Your task to perform on an android device: turn smart compose on in the gmail app Image 0: 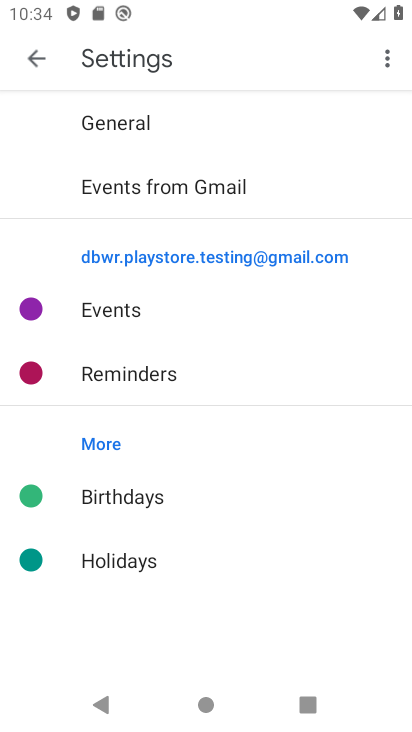
Step 0: press home button
Your task to perform on an android device: turn smart compose on in the gmail app Image 1: 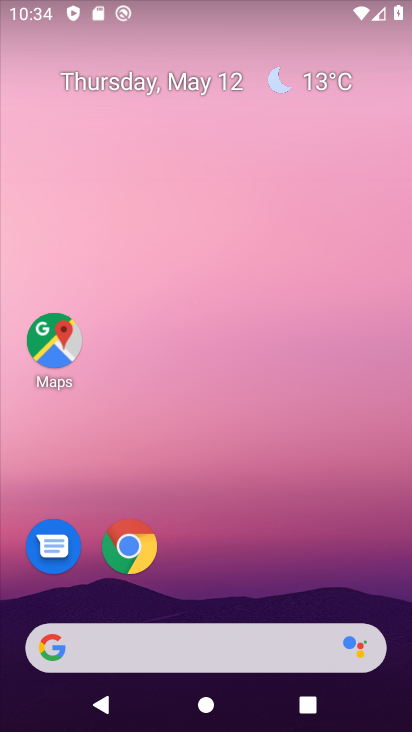
Step 1: drag from (277, 665) to (260, 257)
Your task to perform on an android device: turn smart compose on in the gmail app Image 2: 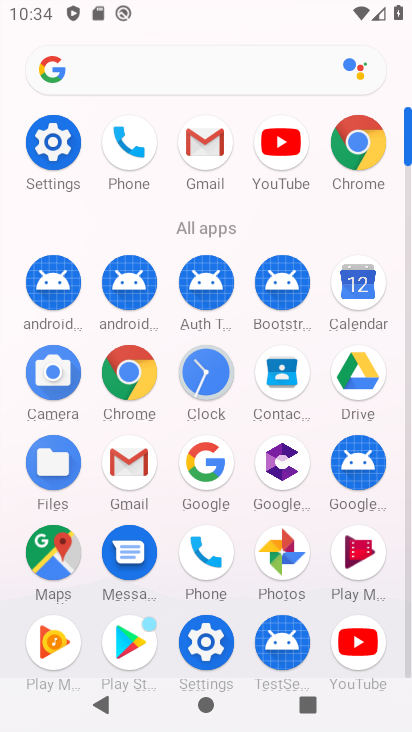
Step 2: click (138, 470)
Your task to perform on an android device: turn smart compose on in the gmail app Image 3: 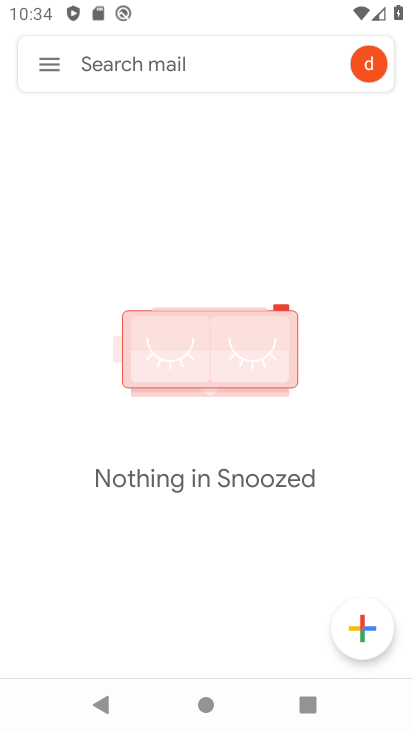
Step 3: click (47, 69)
Your task to perform on an android device: turn smart compose on in the gmail app Image 4: 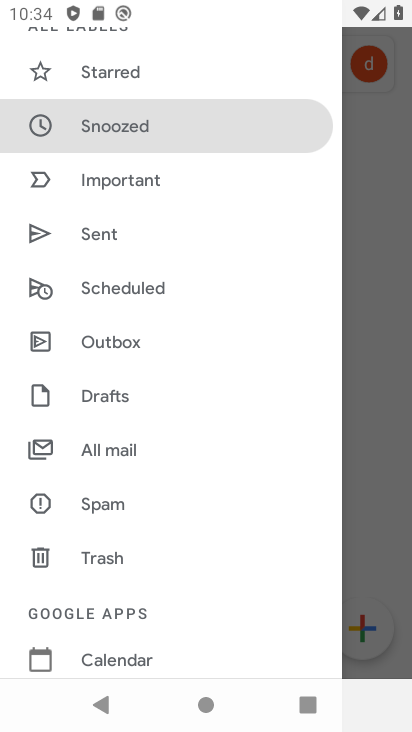
Step 4: drag from (92, 557) to (172, 375)
Your task to perform on an android device: turn smart compose on in the gmail app Image 5: 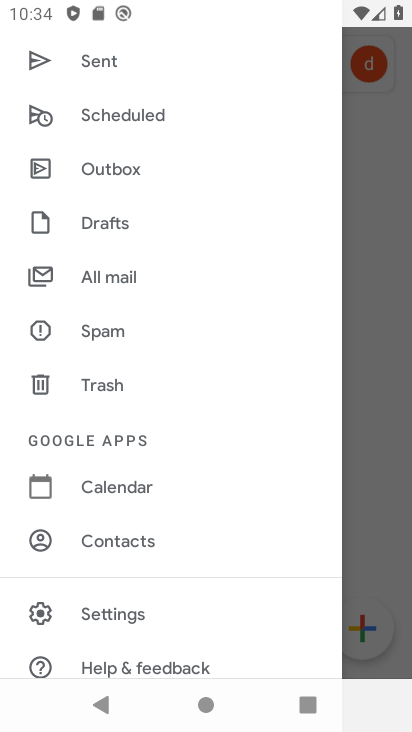
Step 5: click (120, 591)
Your task to perform on an android device: turn smart compose on in the gmail app Image 6: 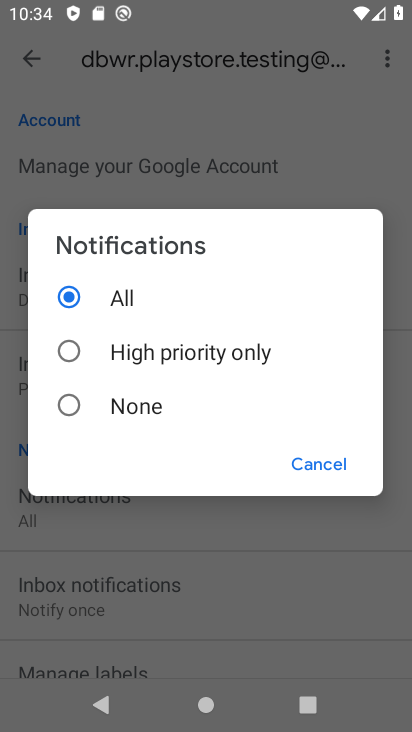
Step 6: click (304, 463)
Your task to perform on an android device: turn smart compose on in the gmail app Image 7: 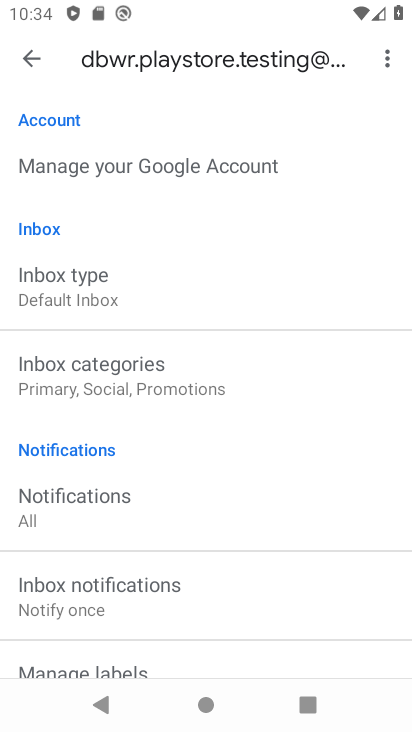
Step 7: drag from (208, 550) to (404, 126)
Your task to perform on an android device: turn smart compose on in the gmail app Image 8: 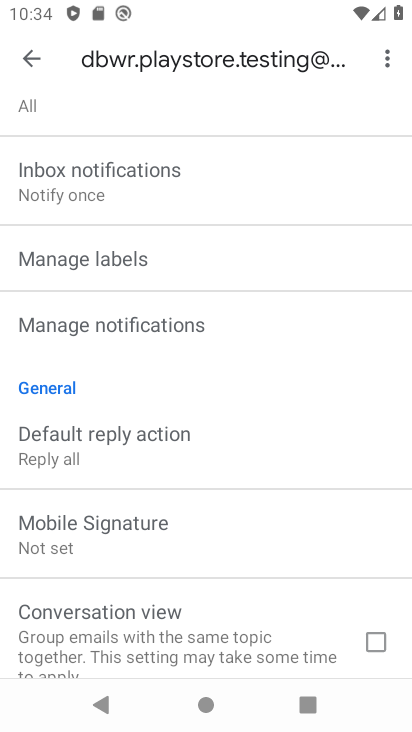
Step 8: drag from (246, 626) to (275, 544)
Your task to perform on an android device: turn smart compose on in the gmail app Image 9: 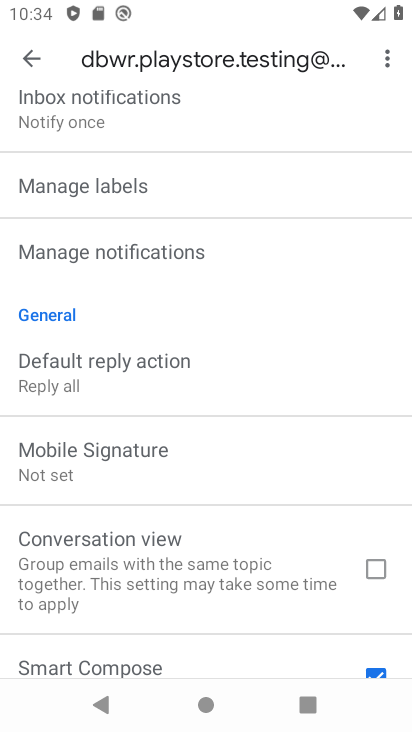
Step 9: drag from (260, 597) to (297, 501)
Your task to perform on an android device: turn smart compose on in the gmail app Image 10: 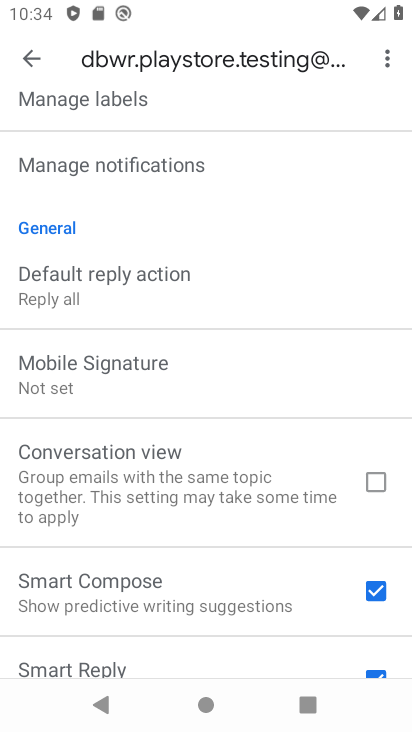
Step 10: click (379, 591)
Your task to perform on an android device: turn smart compose on in the gmail app Image 11: 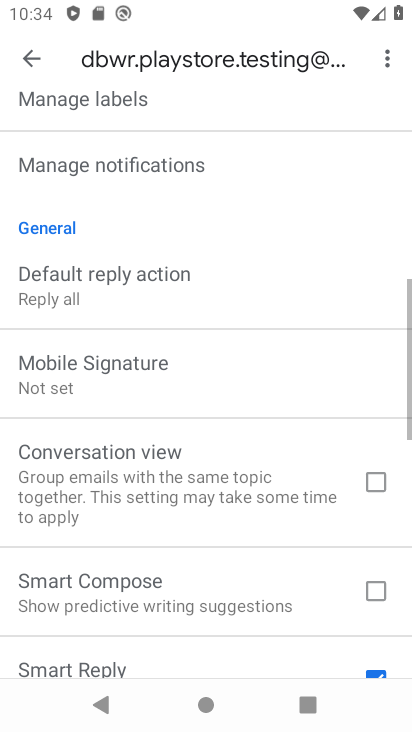
Step 11: click (379, 591)
Your task to perform on an android device: turn smart compose on in the gmail app Image 12: 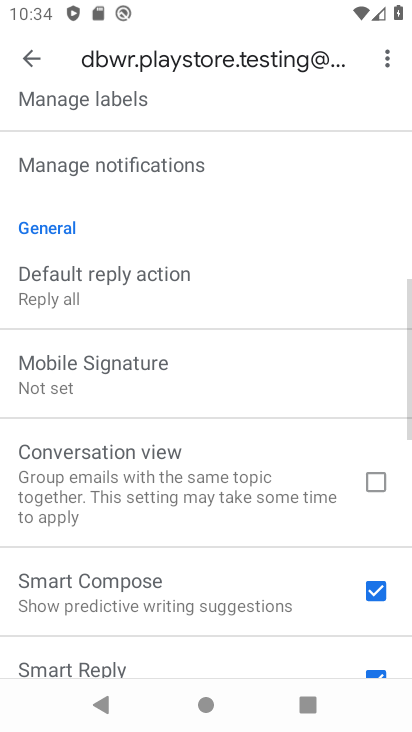
Step 12: task complete